Your task to perform on an android device: Toggle the flashlight Image 0: 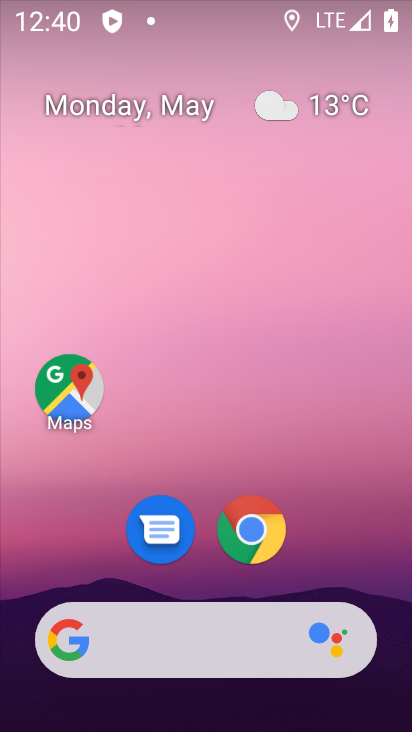
Step 0: drag from (323, 8) to (323, 450)
Your task to perform on an android device: Toggle the flashlight Image 1: 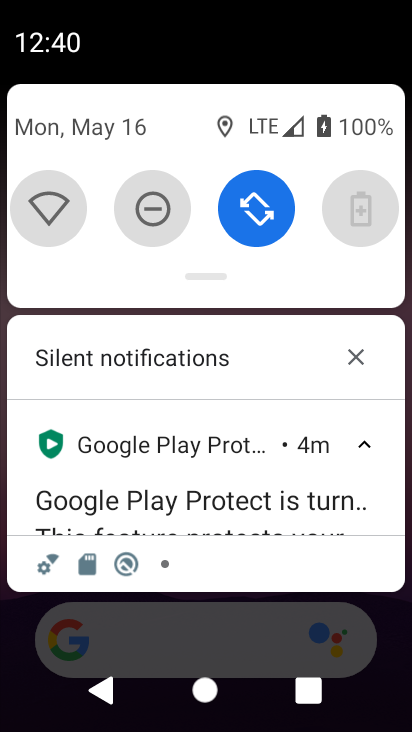
Step 1: task complete